Your task to perform on an android device: Go to Android settings Image 0: 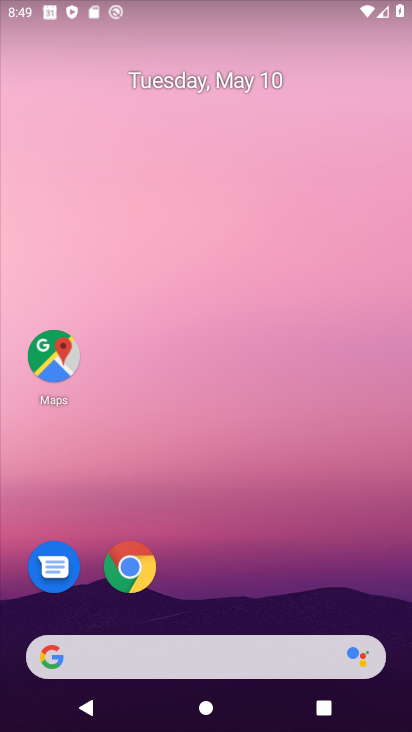
Step 0: drag from (336, 570) to (146, 4)
Your task to perform on an android device: Go to Android settings Image 1: 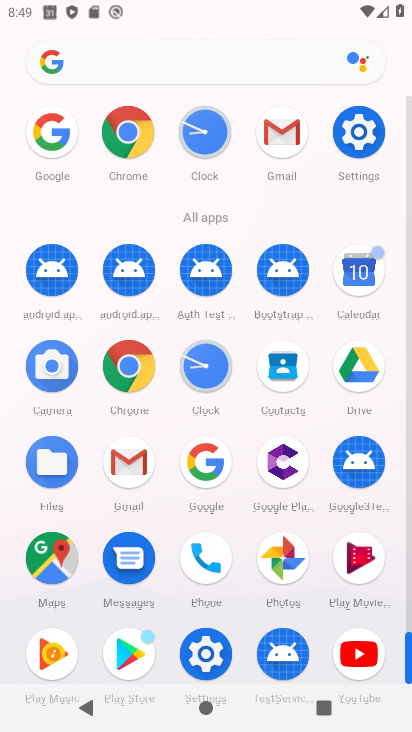
Step 1: click (370, 140)
Your task to perform on an android device: Go to Android settings Image 2: 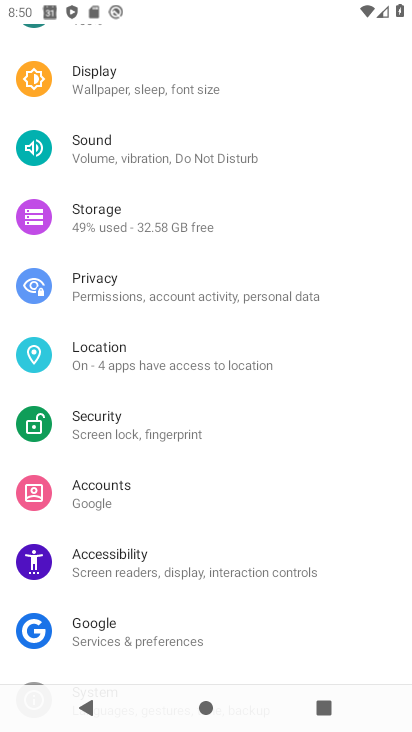
Step 2: drag from (248, 241) to (159, 611)
Your task to perform on an android device: Go to Android settings Image 3: 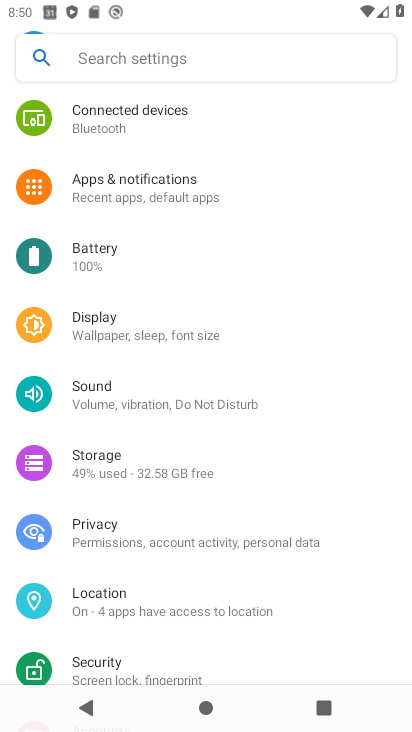
Step 3: drag from (184, 605) to (242, 151)
Your task to perform on an android device: Go to Android settings Image 4: 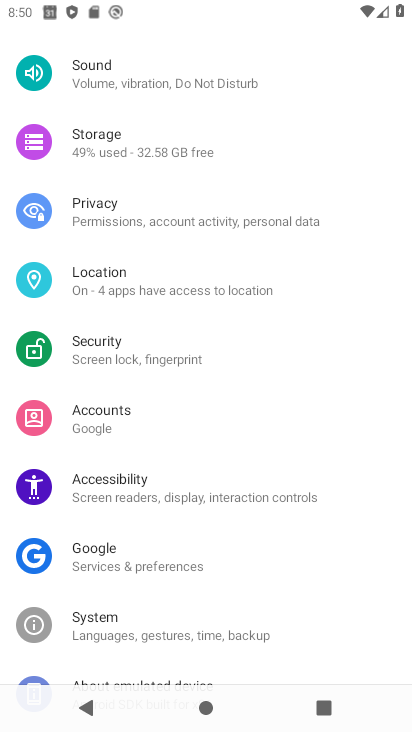
Step 4: drag from (239, 635) to (298, 198)
Your task to perform on an android device: Go to Android settings Image 5: 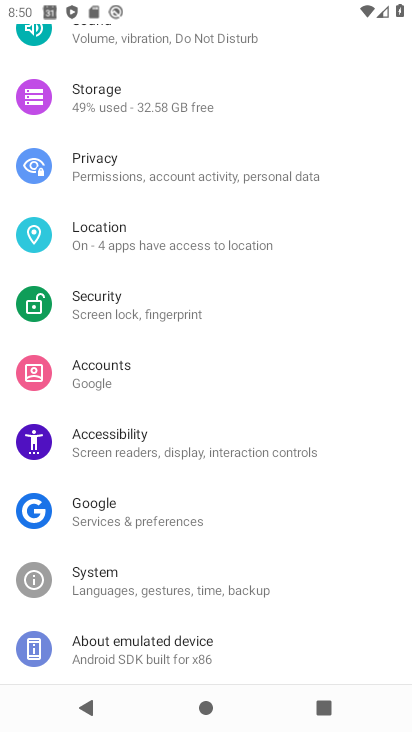
Step 5: click (159, 652)
Your task to perform on an android device: Go to Android settings Image 6: 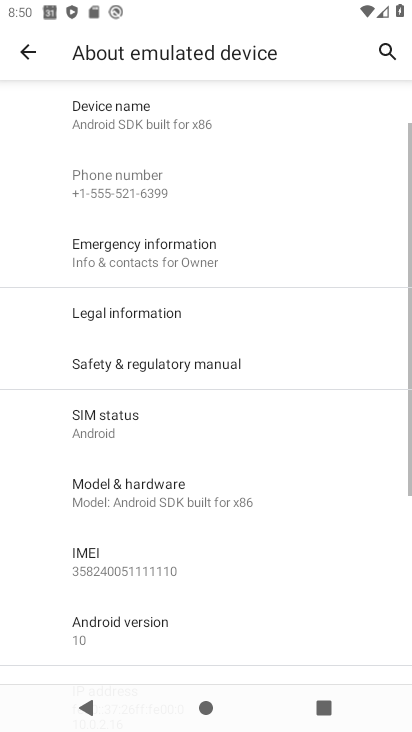
Step 6: task complete